Your task to perform on an android device: add a contact Image 0: 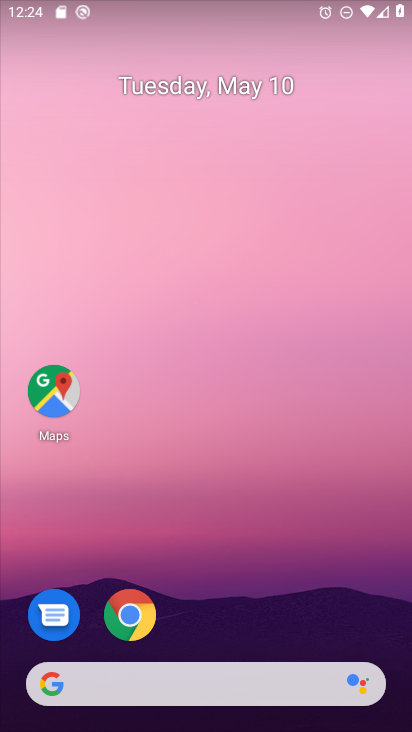
Step 0: drag from (239, 687) to (228, 291)
Your task to perform on an android device: add a contact Image 1: 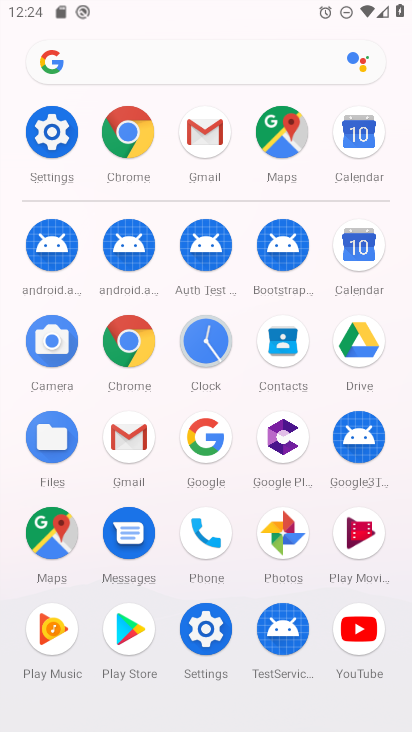
Step 1: click (191, 543)
Your task to perform on an android device: add a contact Image 2: 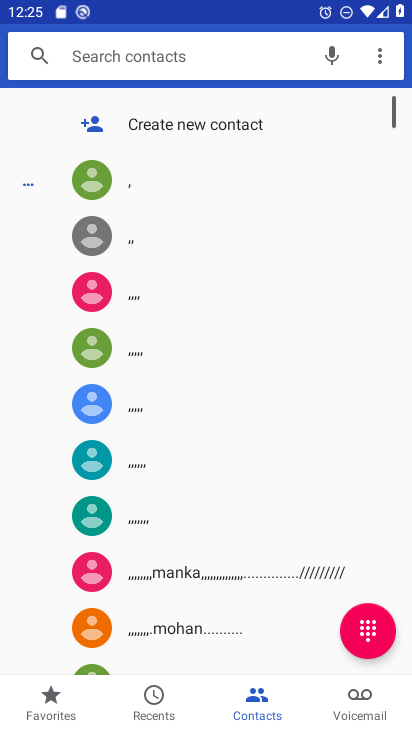
Step 2: click (199, 122)
Your task to perform on an android device: add a contact Image 3: 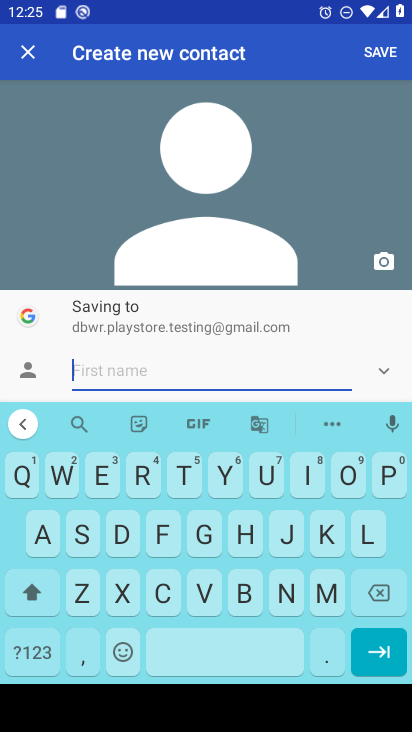
Step 3: click (202, 539)
Your task to perform on an android device: add a contact Image 4: 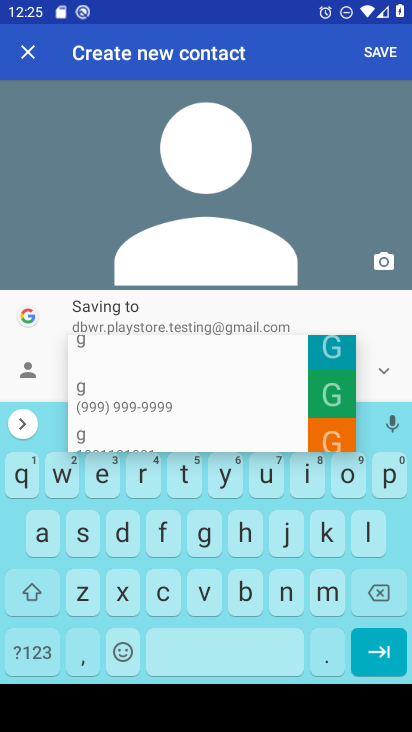
Step 4: click (122, 537)
Your task to perform on an android device: add a contact Image 5: 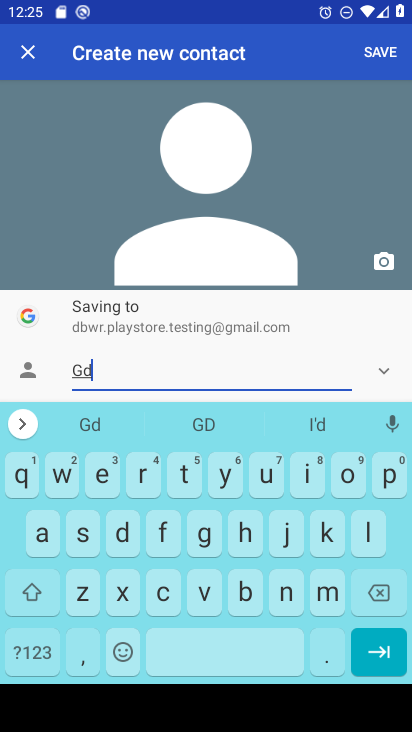
Step 5: click (75, 542)
Your task to perform on an android device: add a contact Image 6: 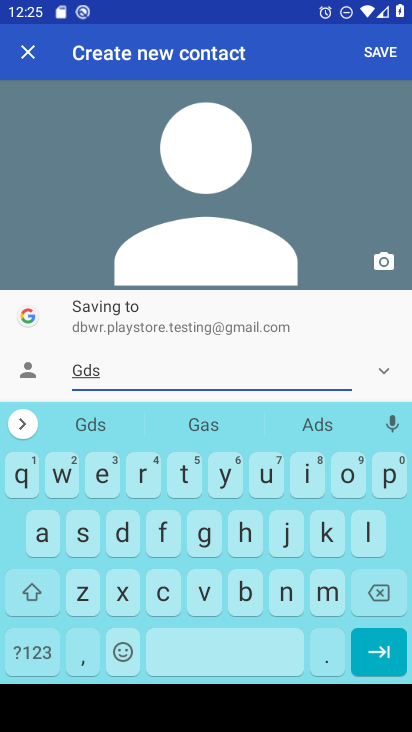
Step 6: drag from (274, 349) to (271, 211)
Your task to perform on an android device: add a contact Image 7: 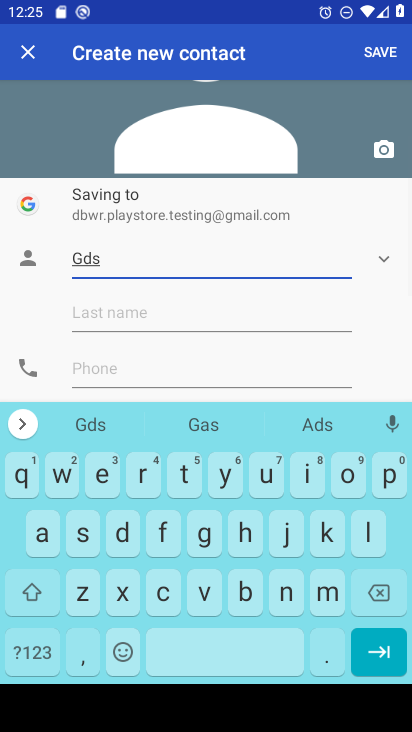
Step 7: click (101, 374)
Your task to perform on an android device: add a contact Image 8: 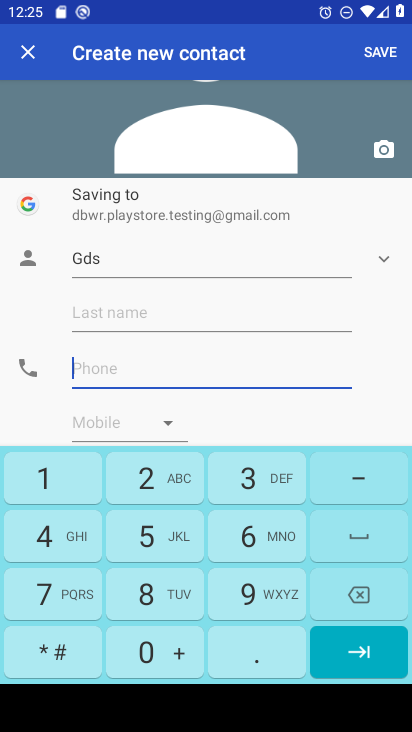
Step 8: click (93, 544)
Your task to perform on an android device: add a contact Image 9: 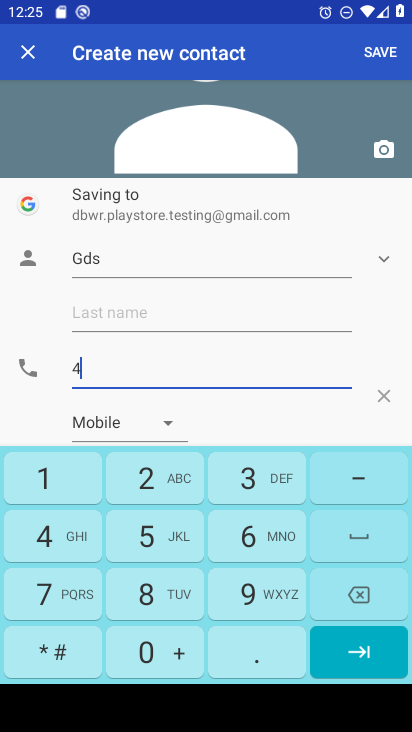
Step 9: click (188, 539)
Your task to perform on an android device: add a contact Image 10: 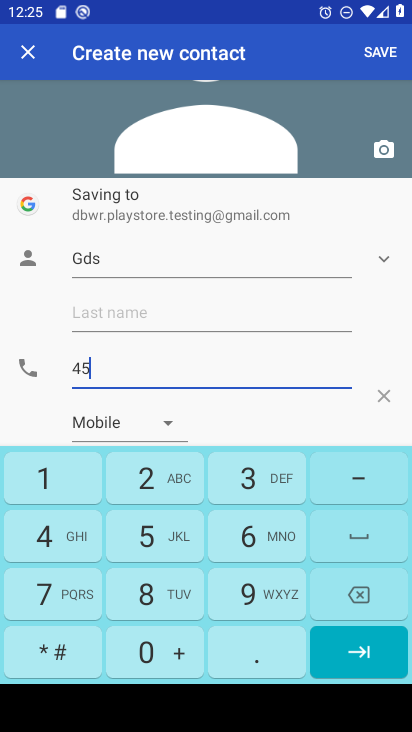
Step 10: click (156, 574)
Your task to perform on an android device: add a contact Image 11: 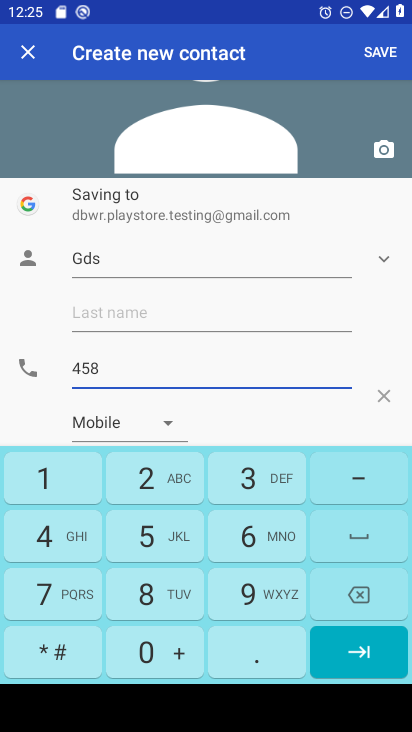
Step 11: click (265, 578)
Your task to perform on an android device: add a contact Image 12: 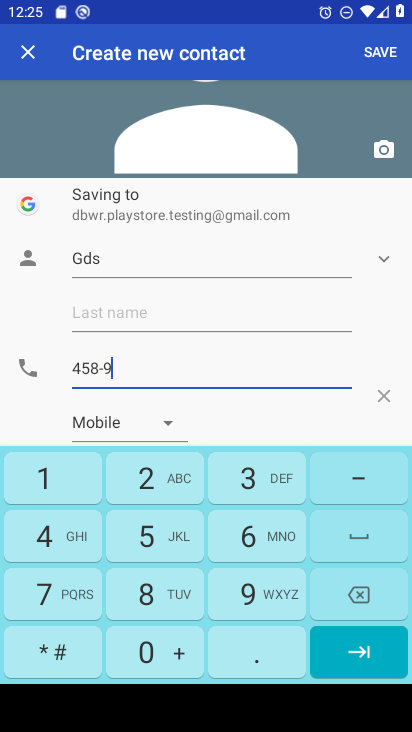
Step 12: click (132, 545)
Your task to perform on an android device: add a contact Image 13: 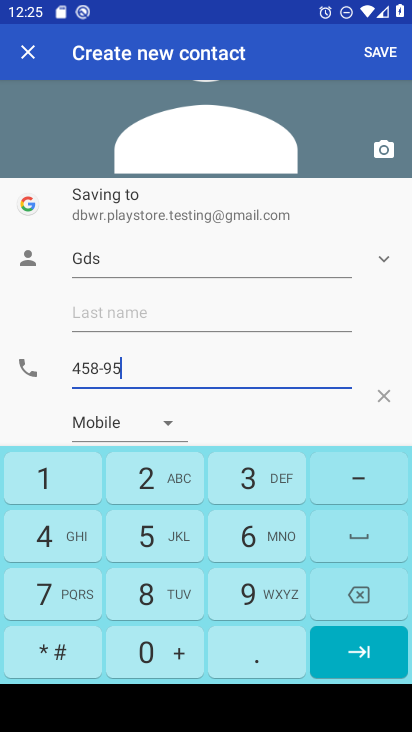
Step 13: click (28, 546)
Your task to perform on an android device: add a contact Image 14: 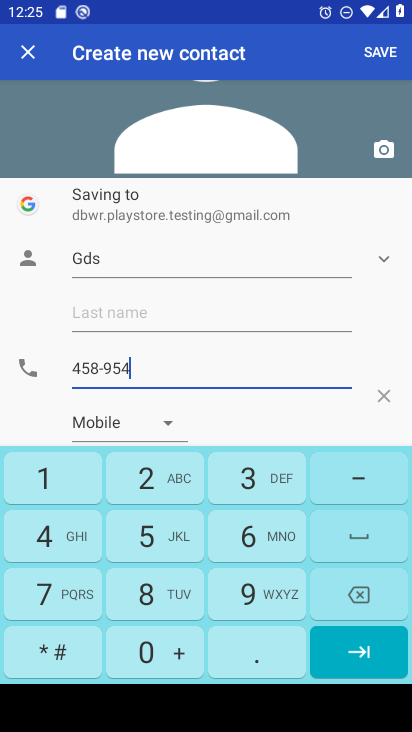
Step 14: click (59, 484)
Your task to perform on an android device: add a contact Image 15: 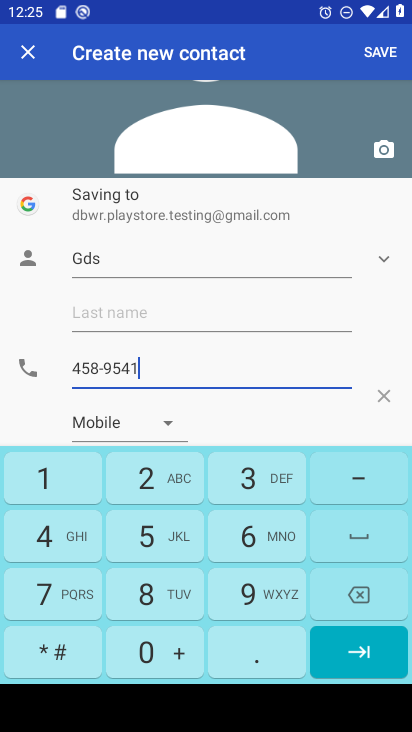
Step 15: click (171, 480)
Your task to perform on an android device: add a contact Image 16: 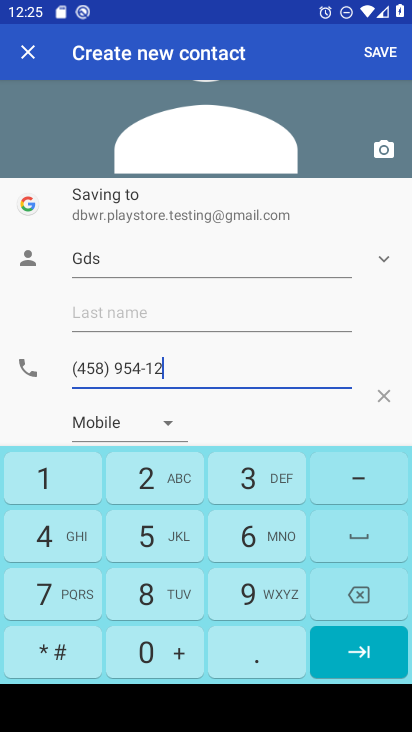
Step 16: click (383, 56)
Your task to perform on an android device: add a contact Image 17: 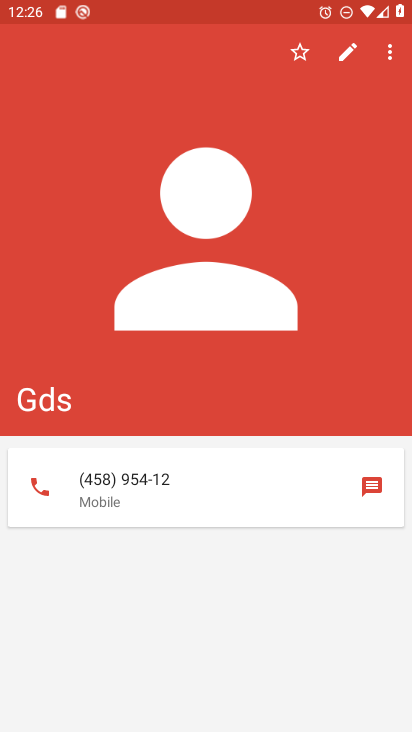
Step 17: task complete